Your task to perform on an android device: install app "Gmail" Image 0: 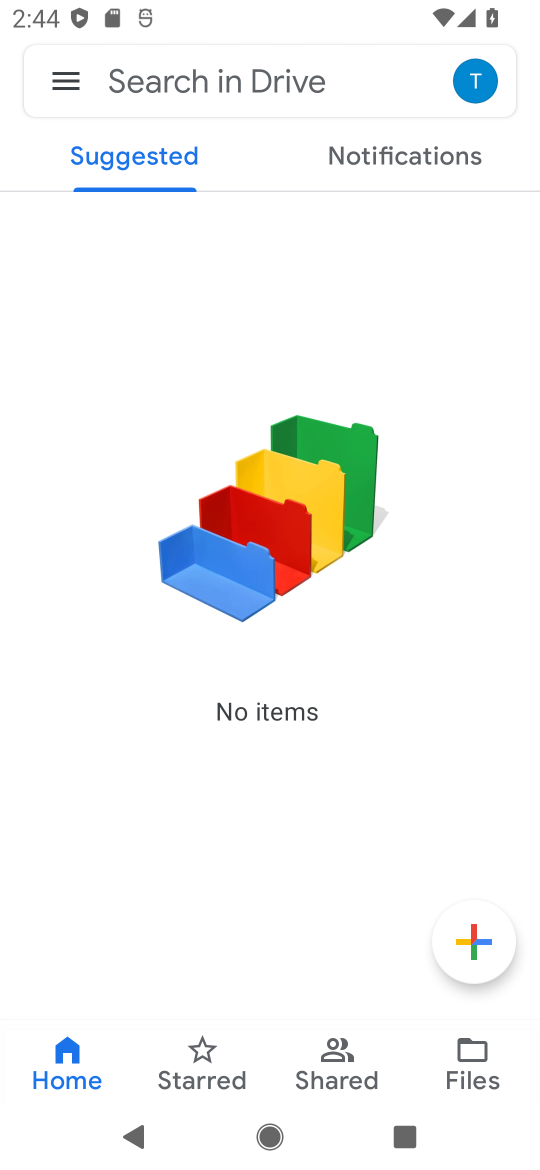
Step 0: press home button
Your task to perform on an android device: install app "Gmail" Image 1: 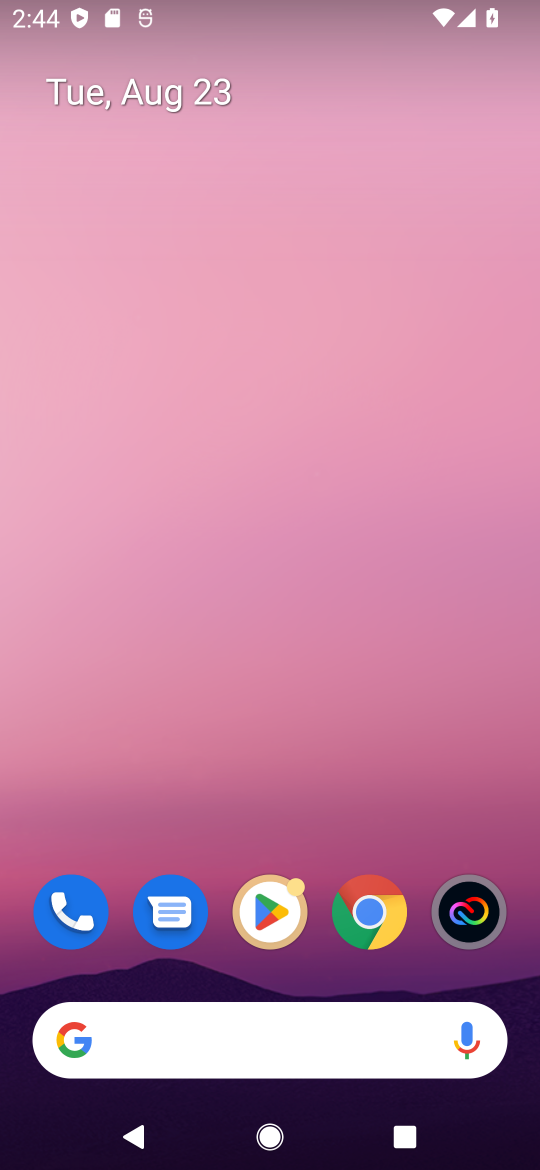
Step 1: drag from (204, 1009) to (315, 87)
Your task to perform on an android device: install app "Gmail" Image 2: 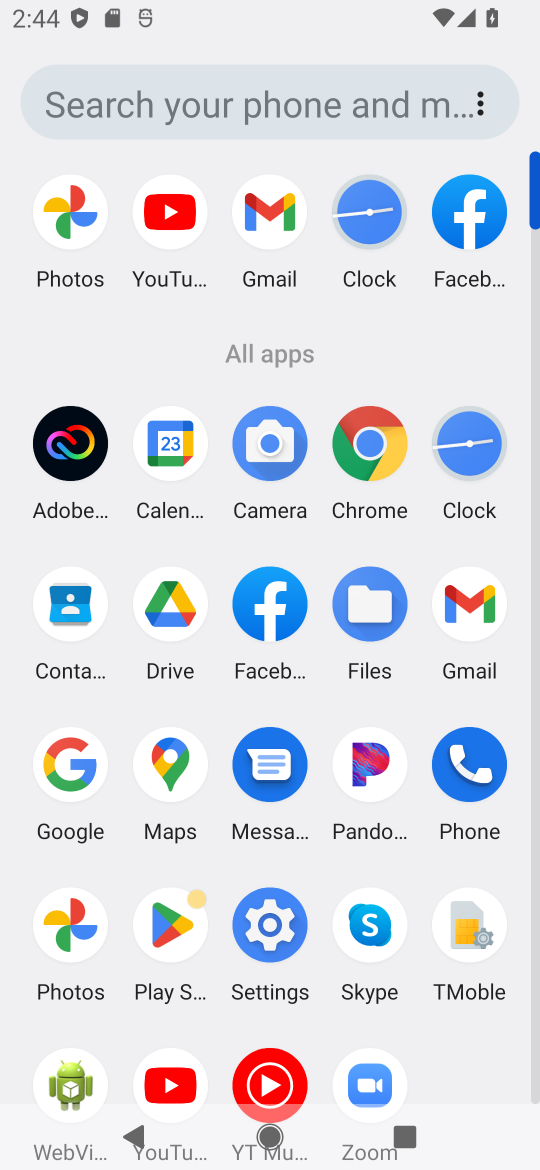
Step 2: click (172, 922)
Your task to perform on an android device: install app "Gmail" Image 3: 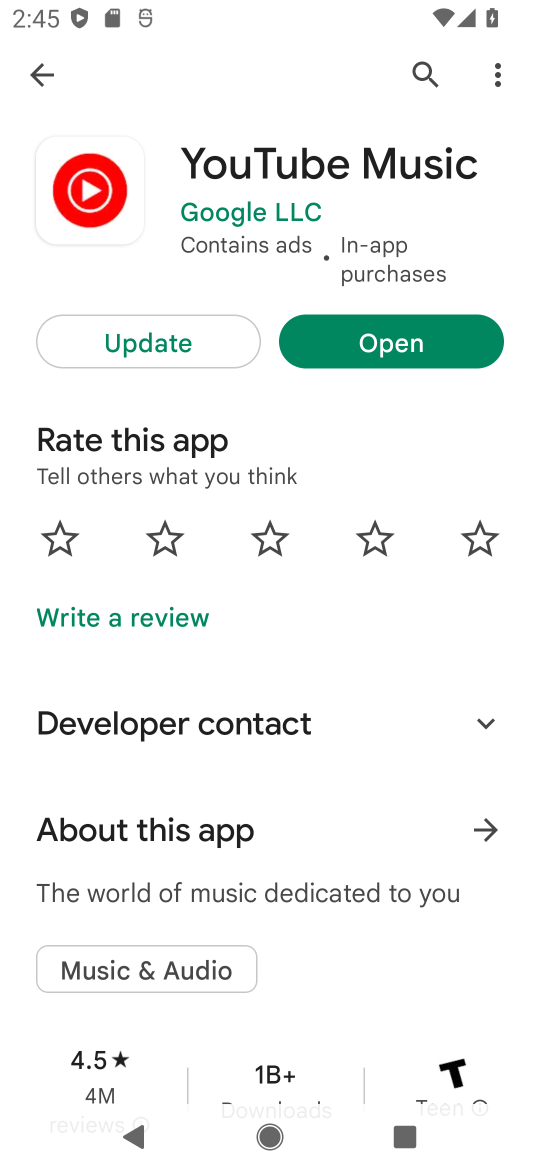
Step 3: press back button
Your task to perform on an android device: install app "Gmail" Image 4: 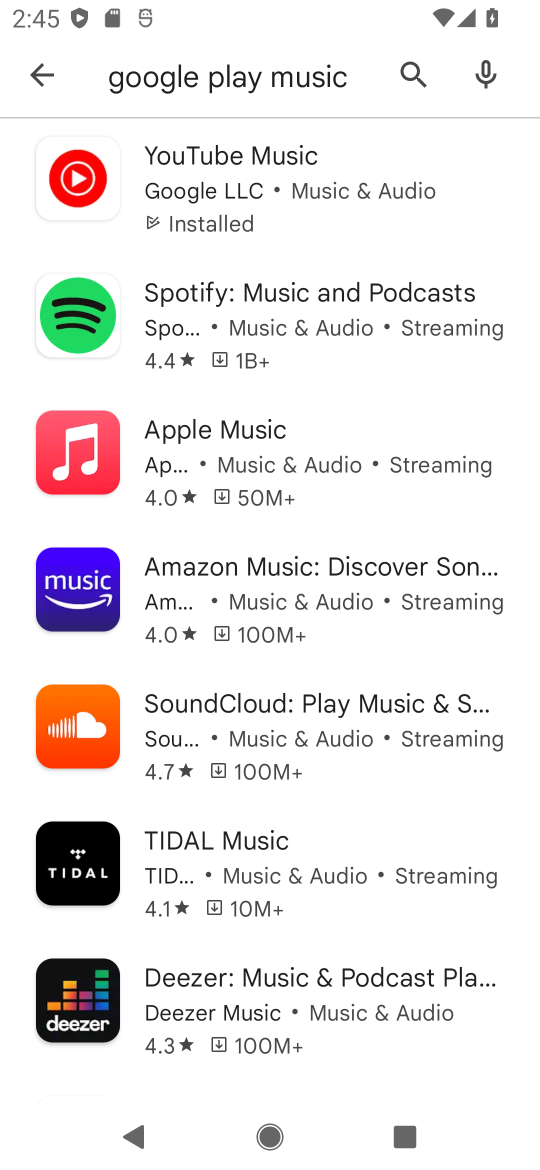
Step 4: press back button
Your task to perform on an android device: install app "Gmail" Image 5: 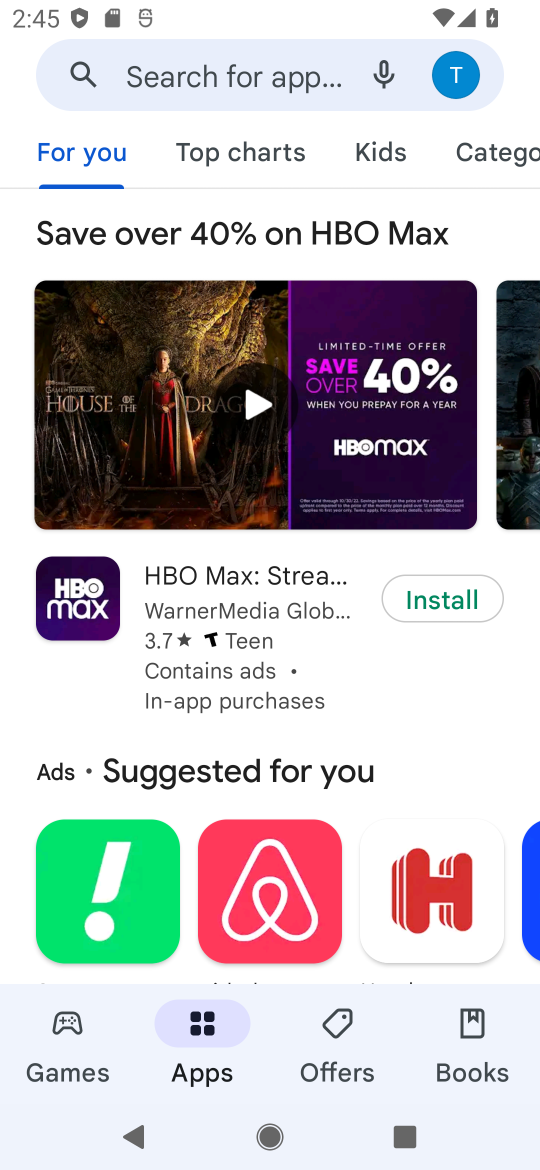
Step 5: click (205, 68)
Your task to perform on an android device: install app "Gmail" Image 6: 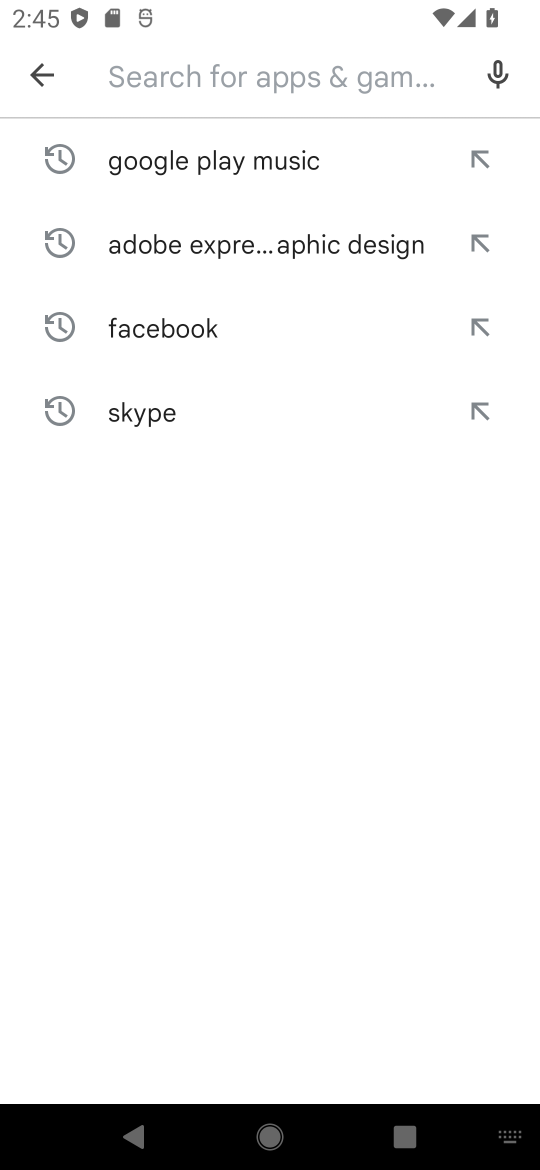
Step 6: type "Gmail"
Your task to perform on an android device: install app "Gmail" Image 7: 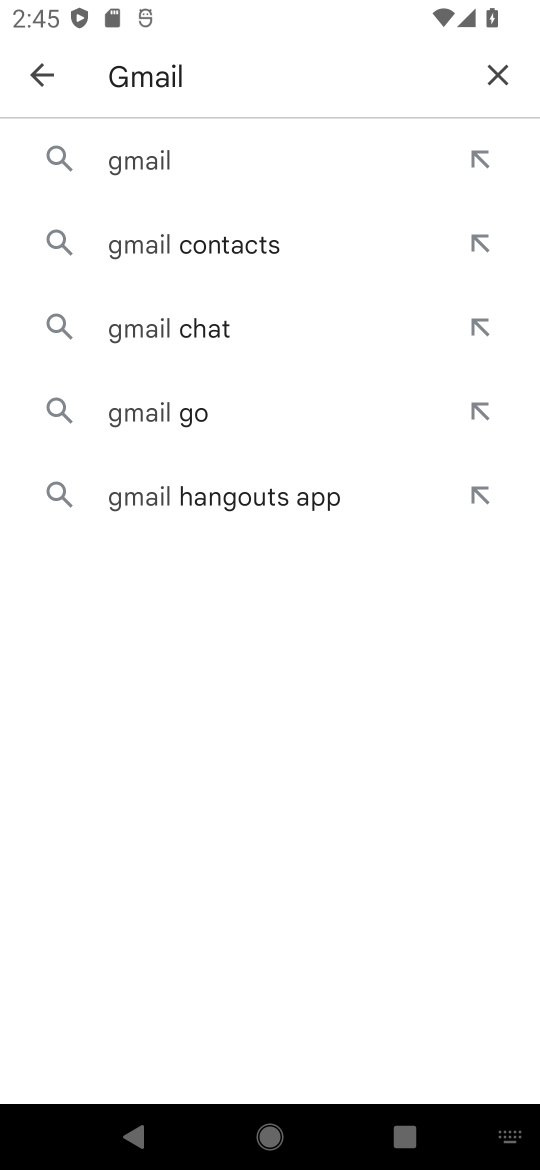
Step 7: click (157, 165)
Your task to perform on an android device: install app "Gmail" Image 8: 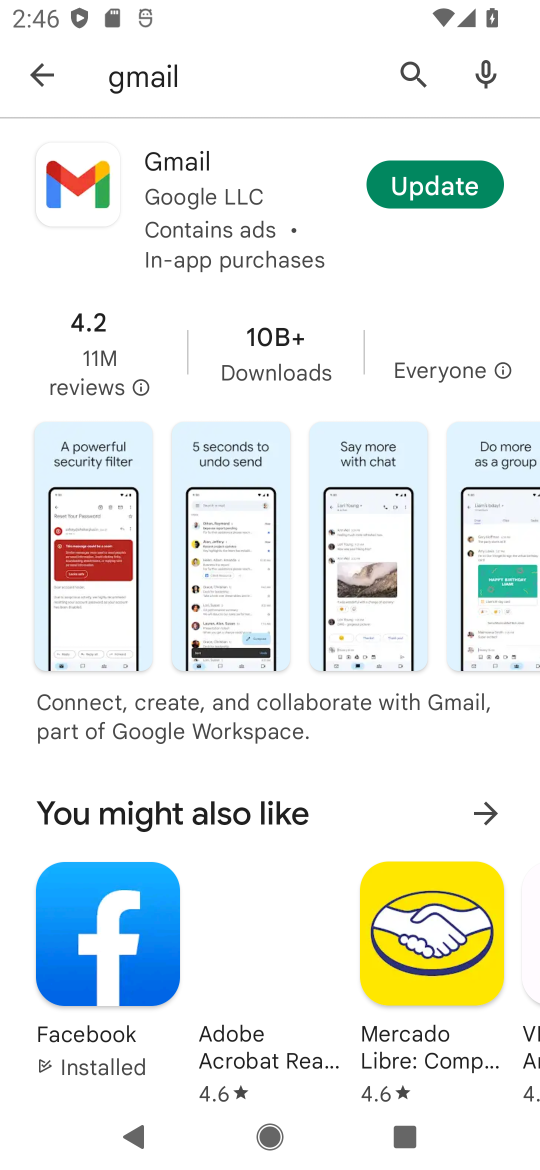
Step 8: click (176, 164)
Your task to perform on an android device: install app "Gmail" Image 9: 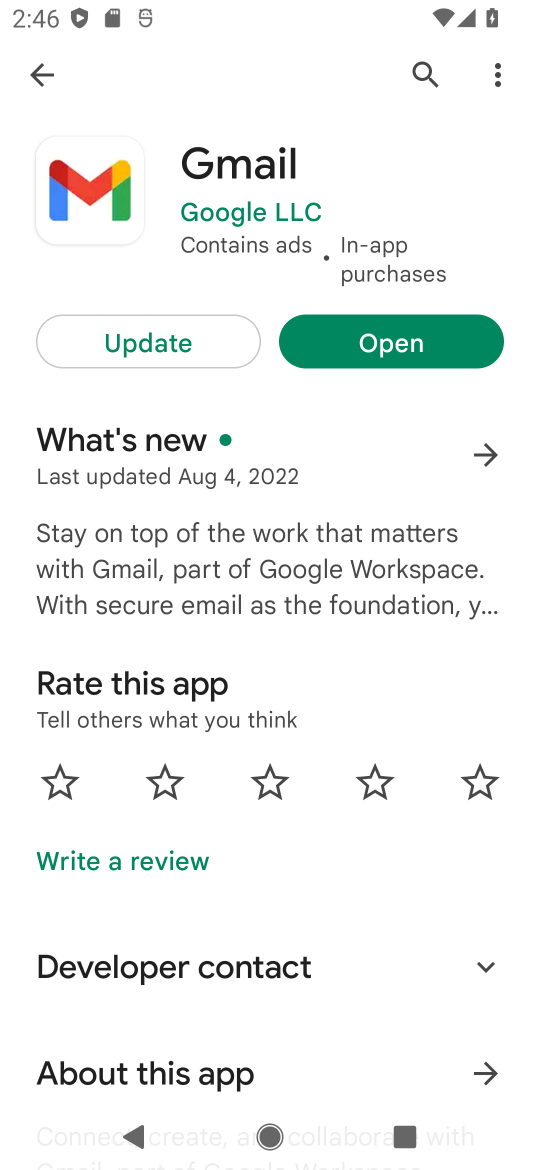
Step 9: task complete